Your task to perform on an android device: turn on notifications settings in the gmail app Image 0: 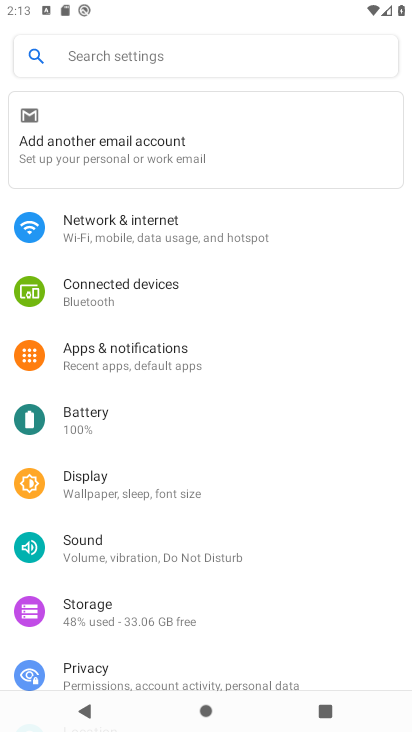
Step 0: press home button
Your task to perform on an android device: turn on notifications settings in the gmail app Image 1: 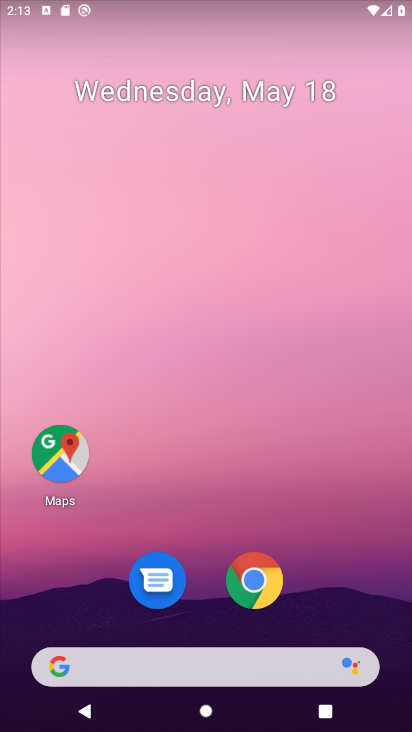
Step 1: drag from (228, 636) to (350, 162)
Your task to perform on an android device: turn on notifications settings in the gmail app Image 2: 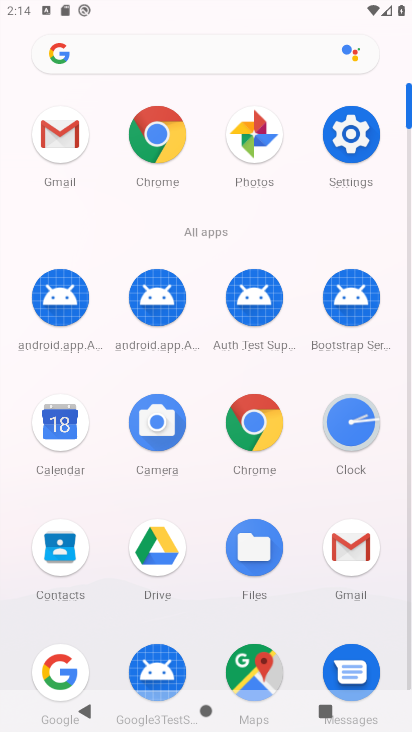
Step 2: click (360, 558)
Your task to perform on an android device: turn on notifications settings in the gmail app Image 3: 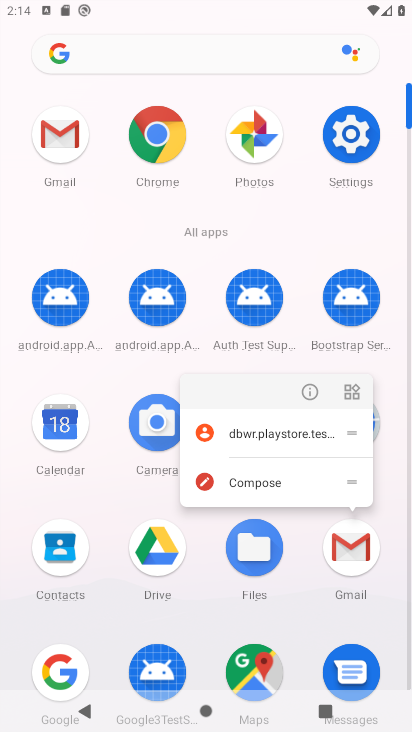
Step 3: click (309, 390)
Your task to perform on an android device: turn on notifications settings in the gmail app Image 4: 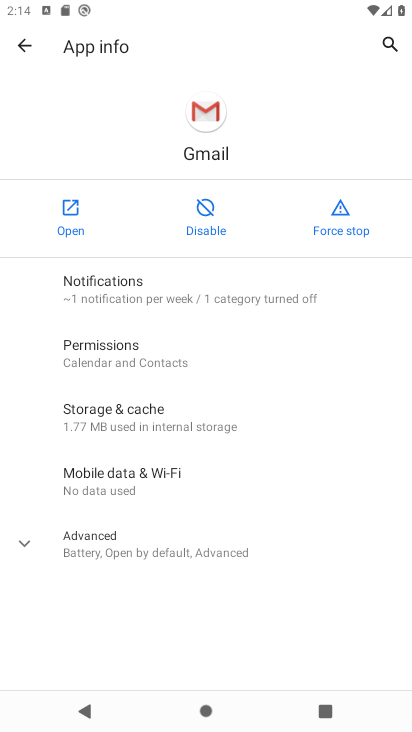
Step 4: click (68, 237)
Your task to perform on an android device: turn on notifications settings in the gmail app Image 5: 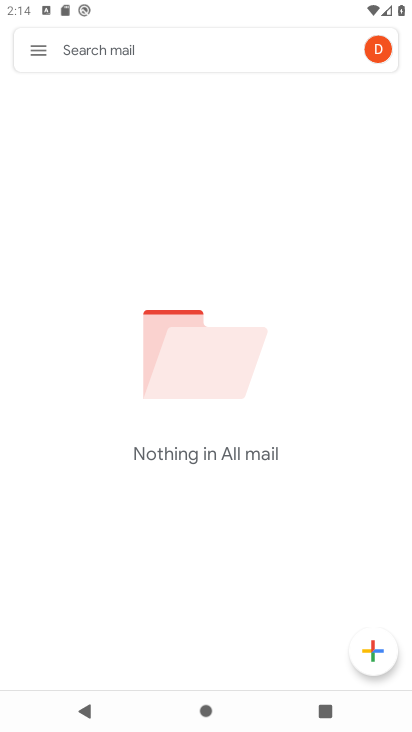
Step 5: click (37, 51)
Your task to perform on an android device: turn on notifications settings in the gmail app Image 6: 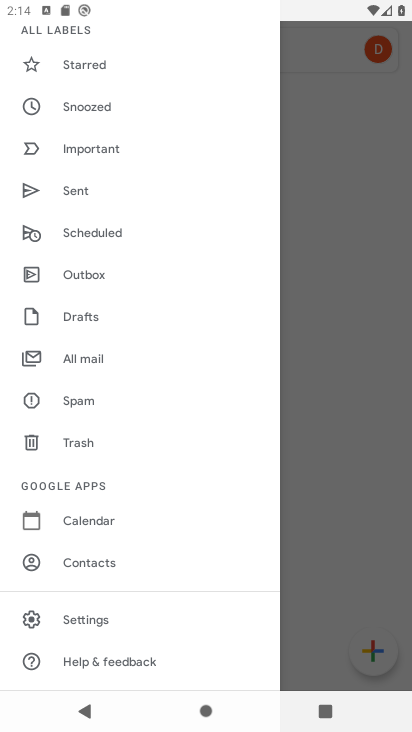
Step 6: click (94, 614)
Your task to perform on an android device: turn on notifications settings in the gmail app Image 7: 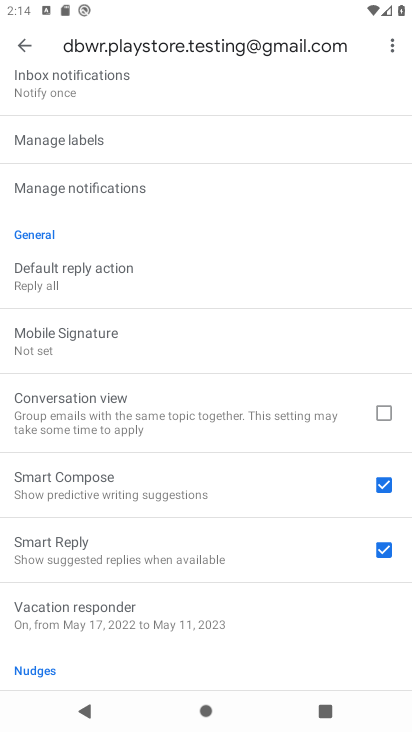
Step 7: click (129, 193)
Your task to perform on an android device: turn on notifications settings in the gmail app Image 8: 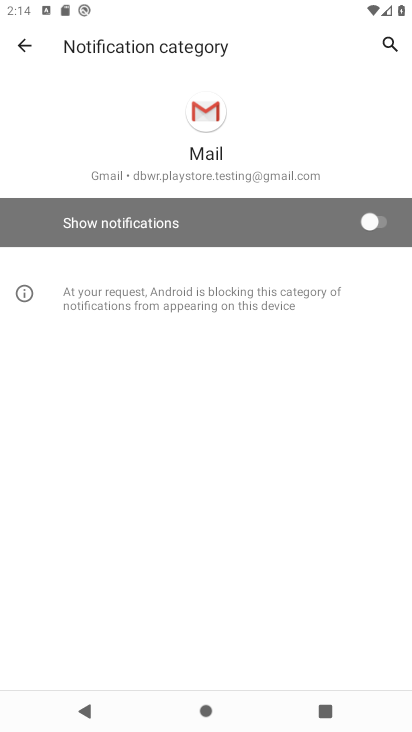
Step 8: click (317, 218)
Your task to perform on an android device: turn on notifications settings in the gmail app Image 9: 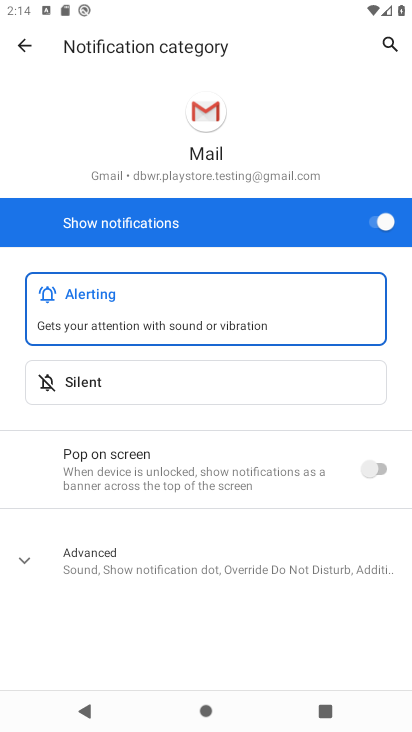
Step 9: task complete